Your task to perform on an android device: move an email to a new category in the gmail app Image 0: 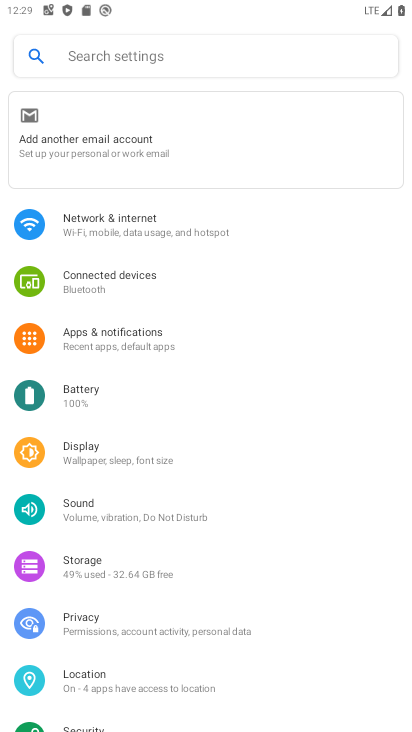
Step 0: press home button
Your task to perform on an android device: move an email to a new category in the gmail app Image 1: 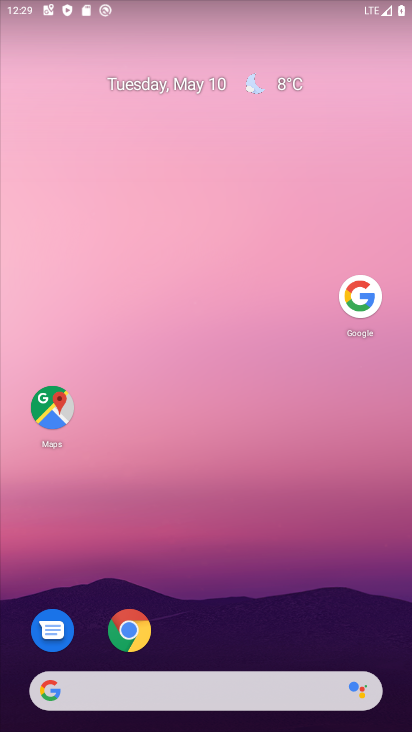
Step 1: drag from (213, 690) to (394, 114)
Your task to perform on an android device: move an email to a new category in the gmail app Image 2: 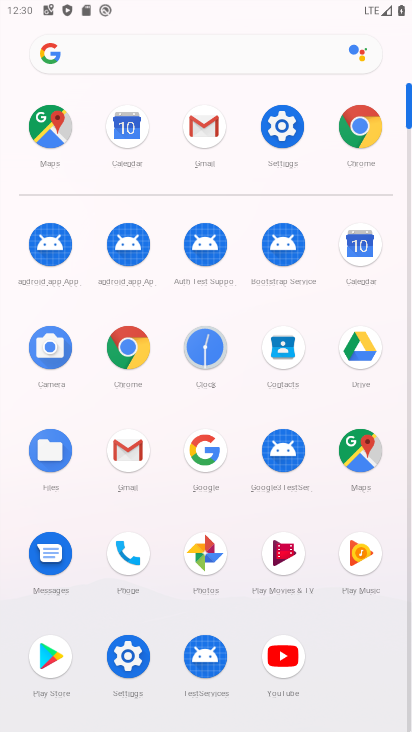
Step 2: click (214, 131)
Your task to perform on an android device: move an email to a new category in the gmail app Image 3: 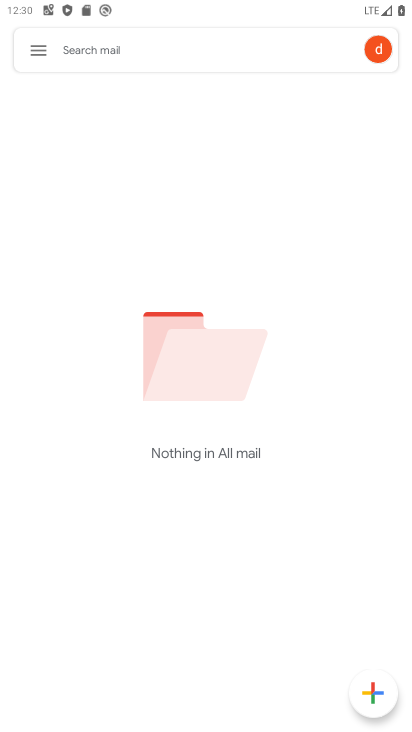
Step 3: task complete